Your task to perform on an android device: Clear all items from cart on bestbuy.com. Image 0: 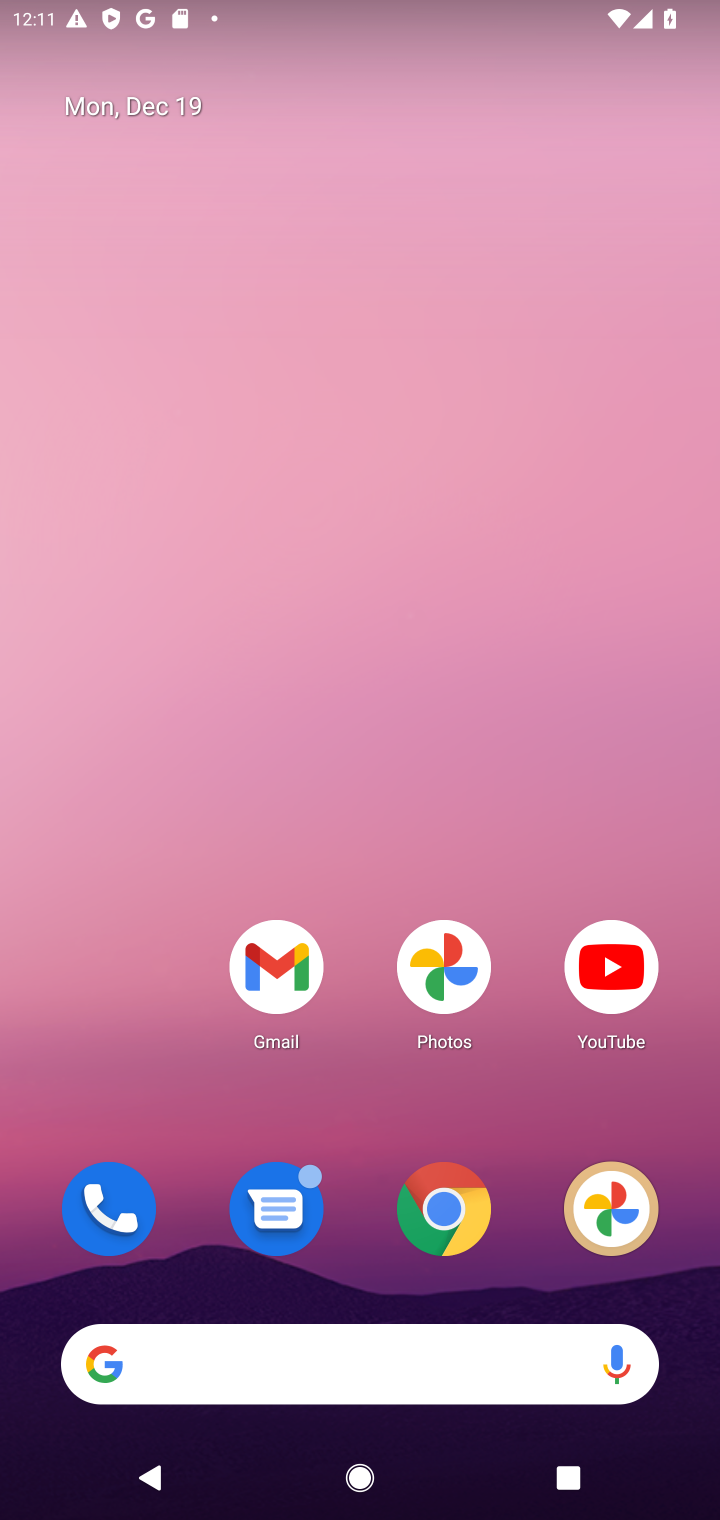
Step 0: click (436, 1219)
Your task to perform on an android device: Clear all items from cart on bestbuy.com. Image 1: 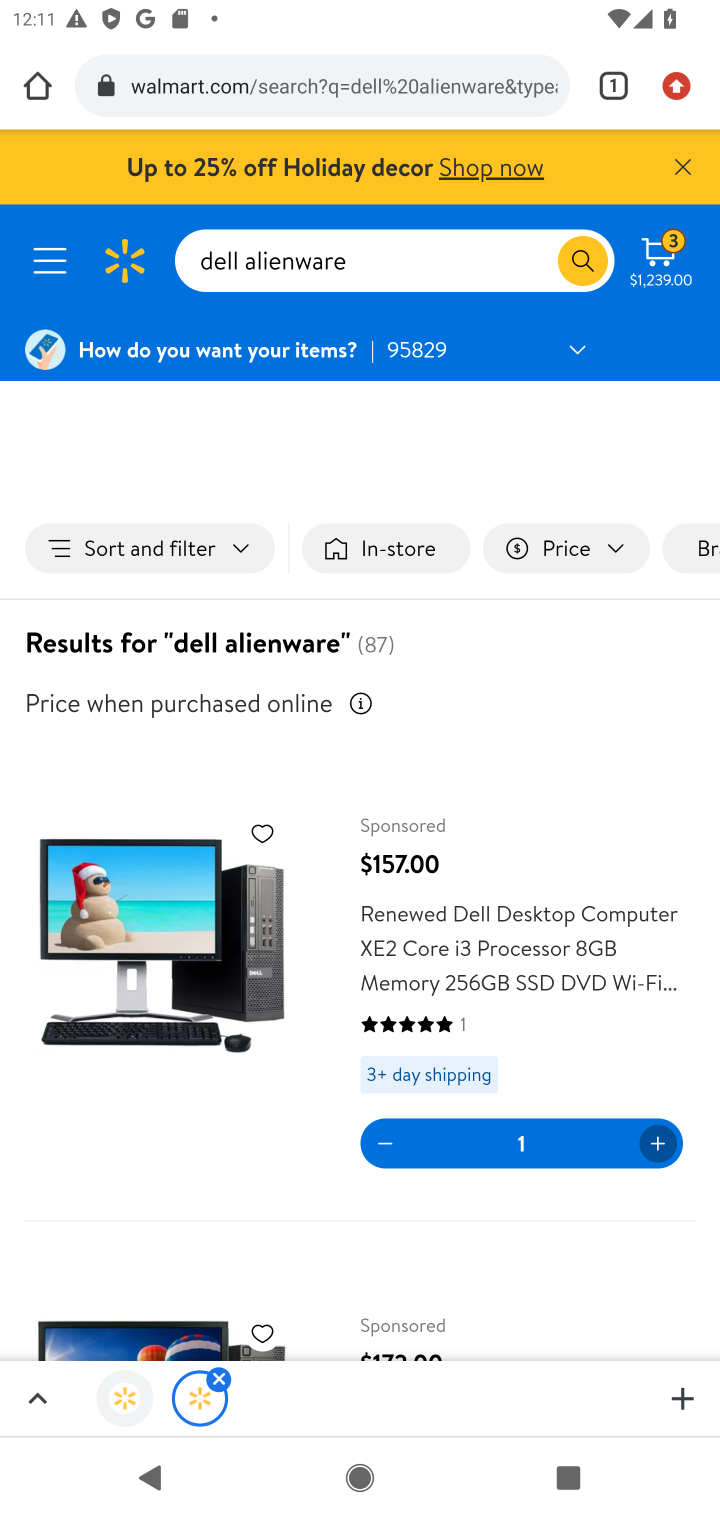
Step 1: click (330, 68)
Your task to perform on an android device: Clear all items from cart on bestbuy.com. Image 2: 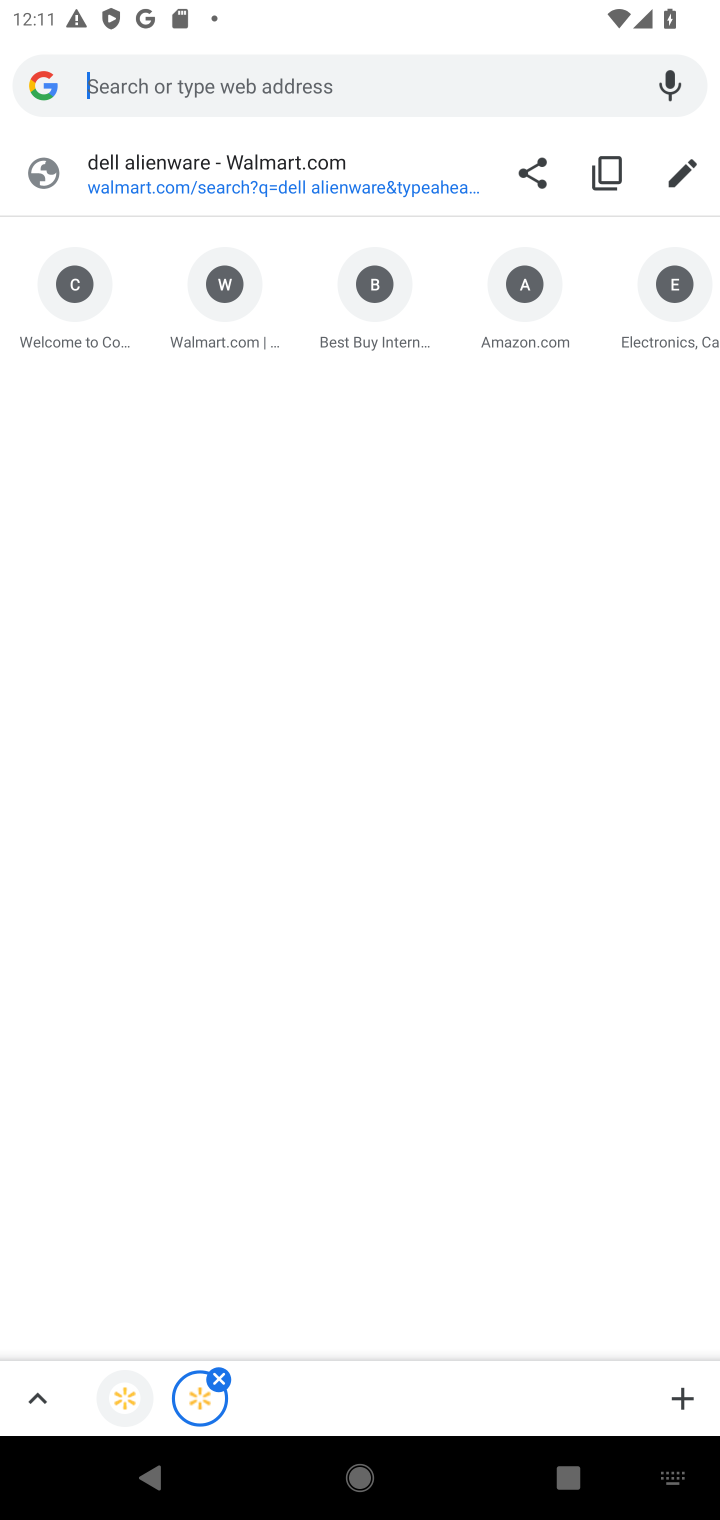
Step 2: type "bestbuy"
Your task to perform on an android device: Clear all items from cart on bestbuy.com. Image 3: 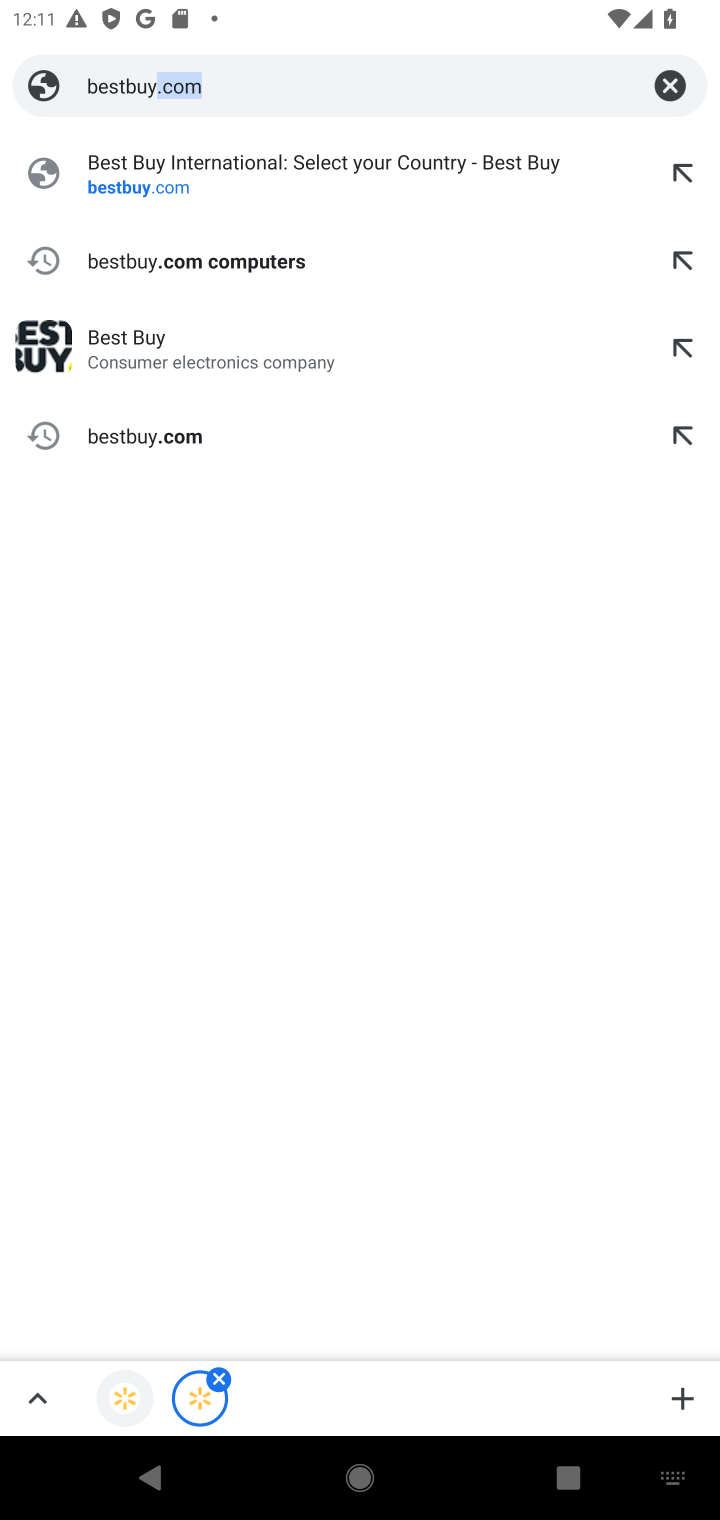
Step 3: click (170, 182)
Your task to perform on an android device: Clear all items from cart on bestbuy.com. Image 4: 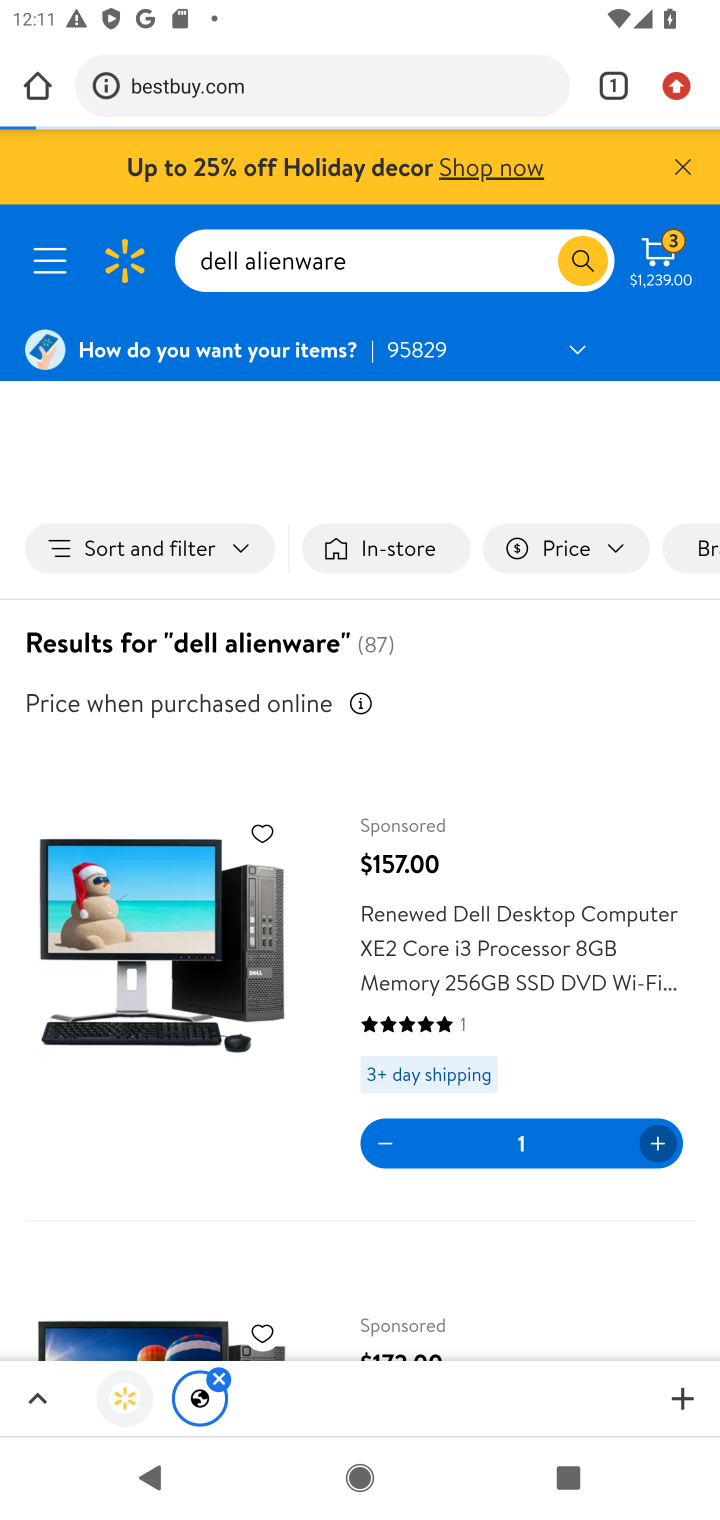
Step 4: click (170, 182)
Your task to perform on an android device: Clear all items from cart on bestbuy.com. Image 5: 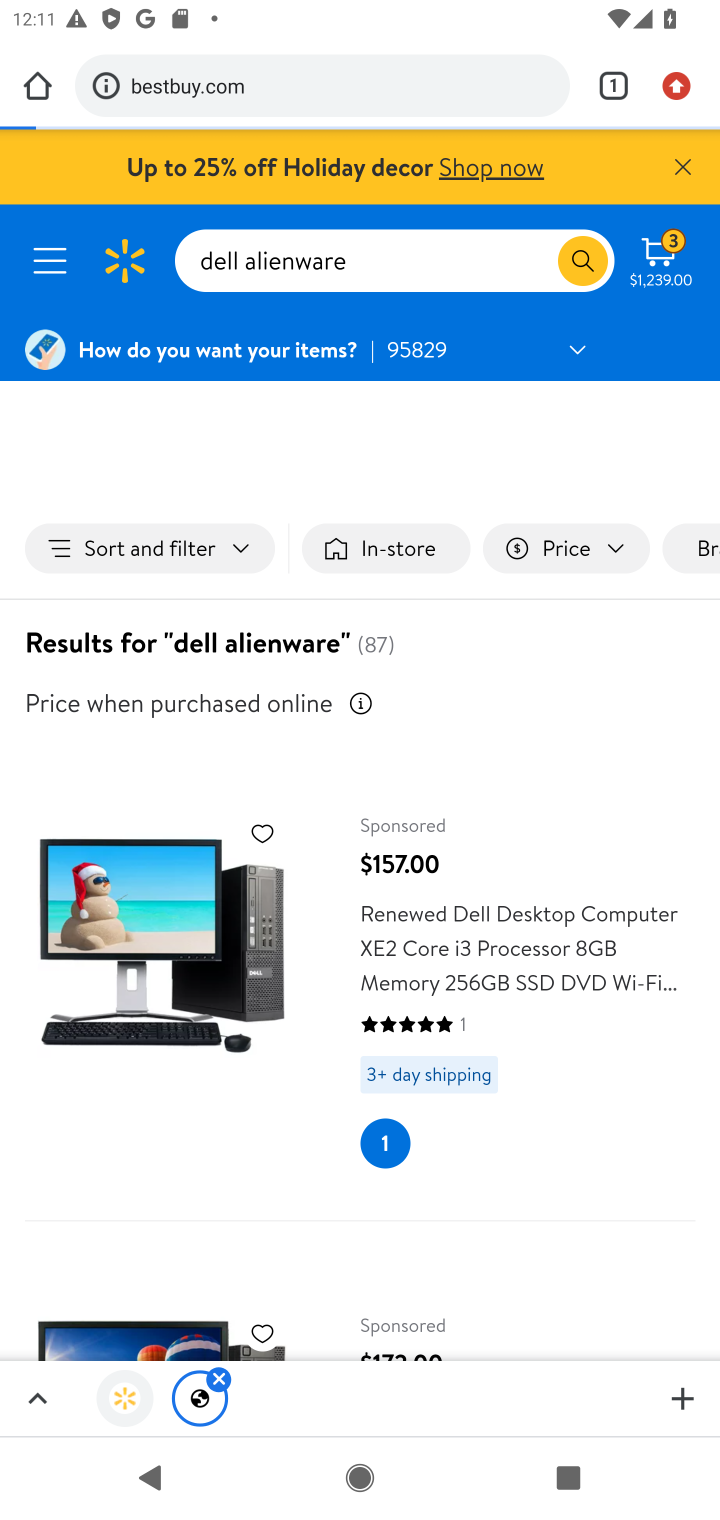
Step 5: click (316, 90)
Your task to perform on an android device: Clear all items from cart on bestbuy.com. Image 6: 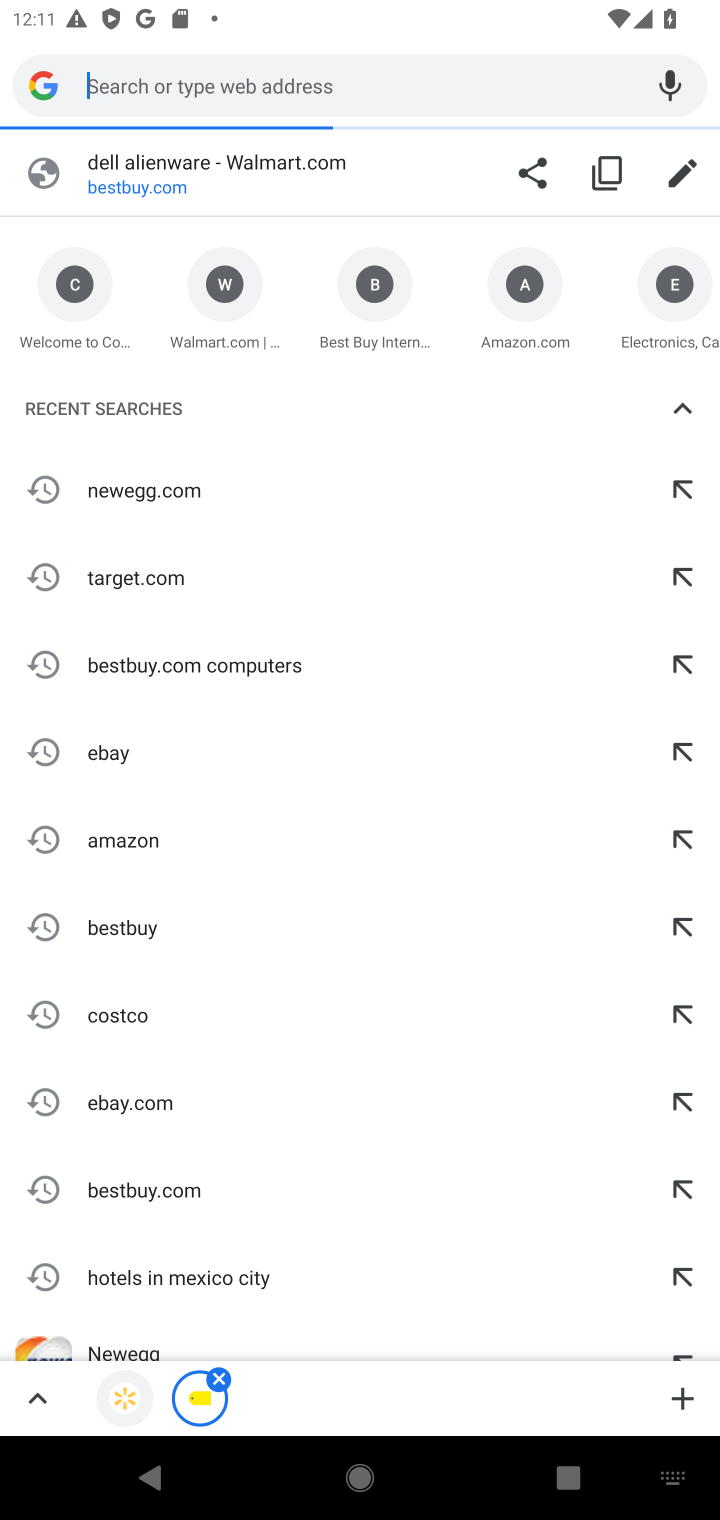
Step 6: click (138, 939)
Your task to perform on an android device: Clear all items from cart on bestbuy.com. Image 7: 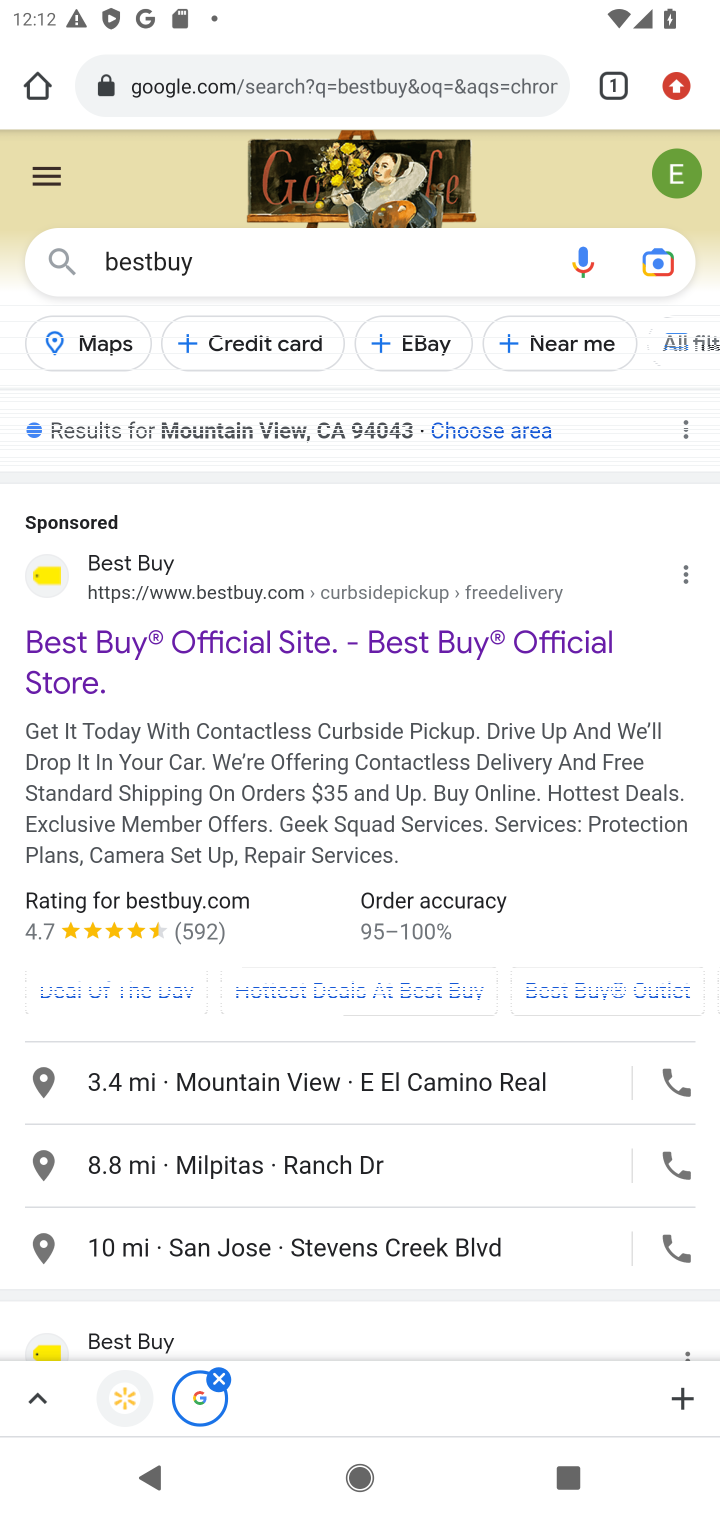
Step 7: click (107, 654)
Your task to perform on an android device: Clear all items from cart on bestbuy.com. Image 8: 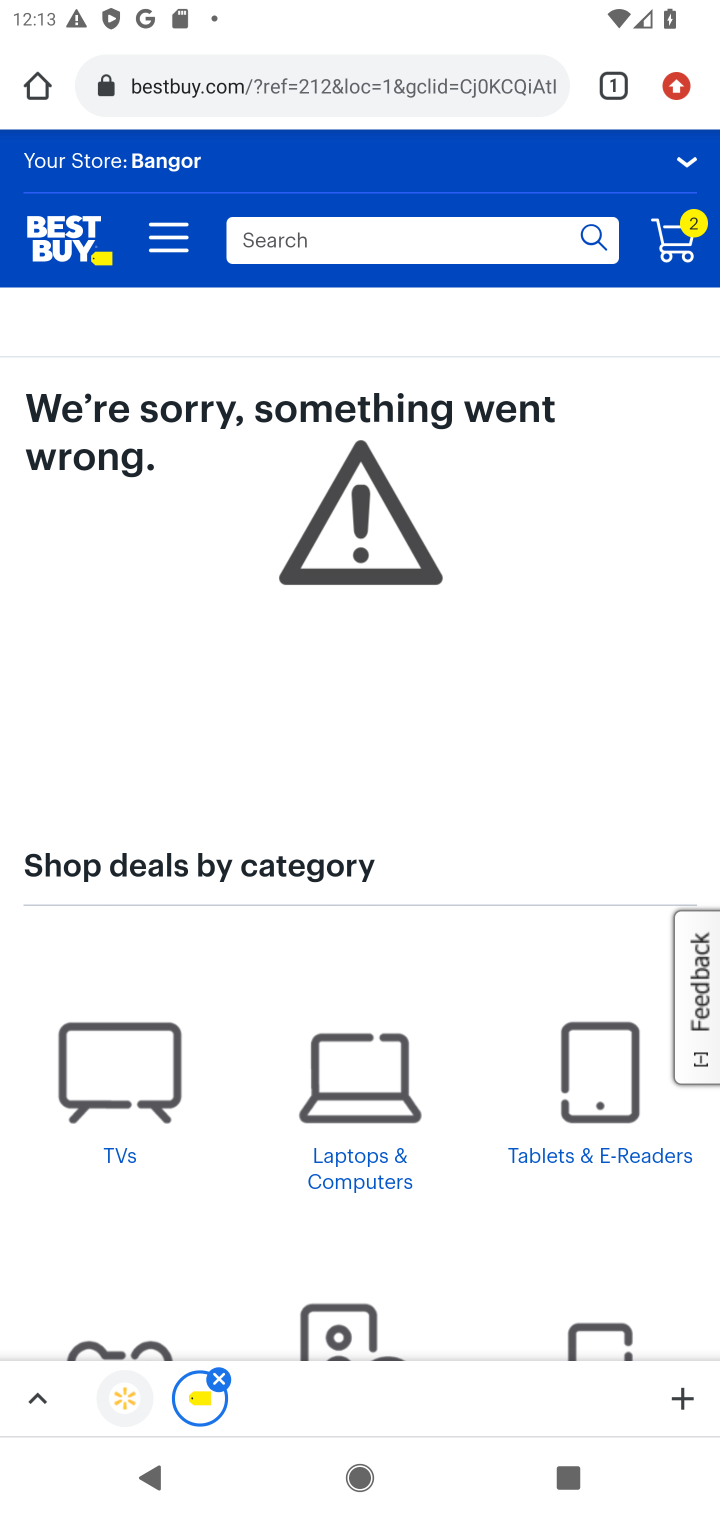
Step 8: click (676, 238)
Your task to perform on an android device: Clear all items from cart on bestbuy.com. Image 9: 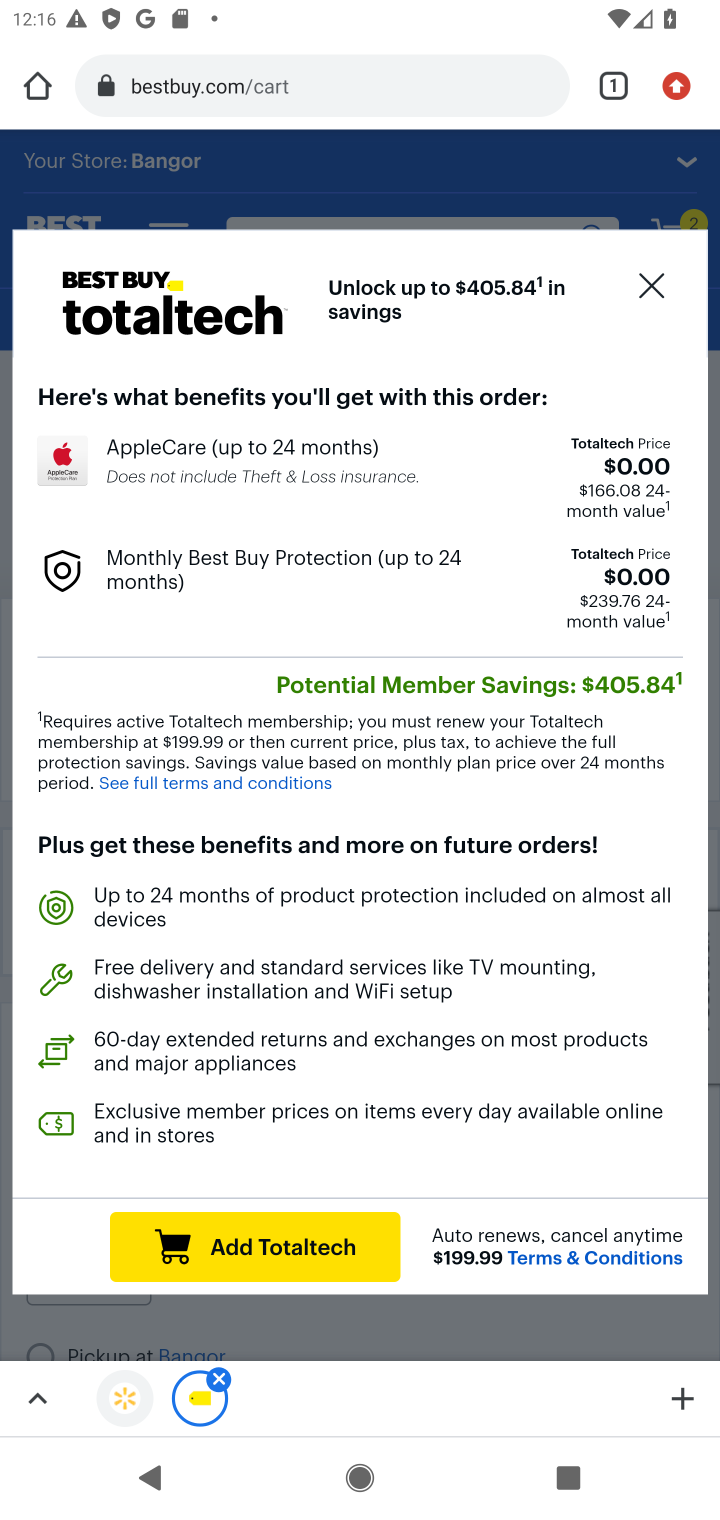
Step 9: click (645, 280)
Your task to perform on an android device: Clear all items from cart on bestbuy.com. Image 10: 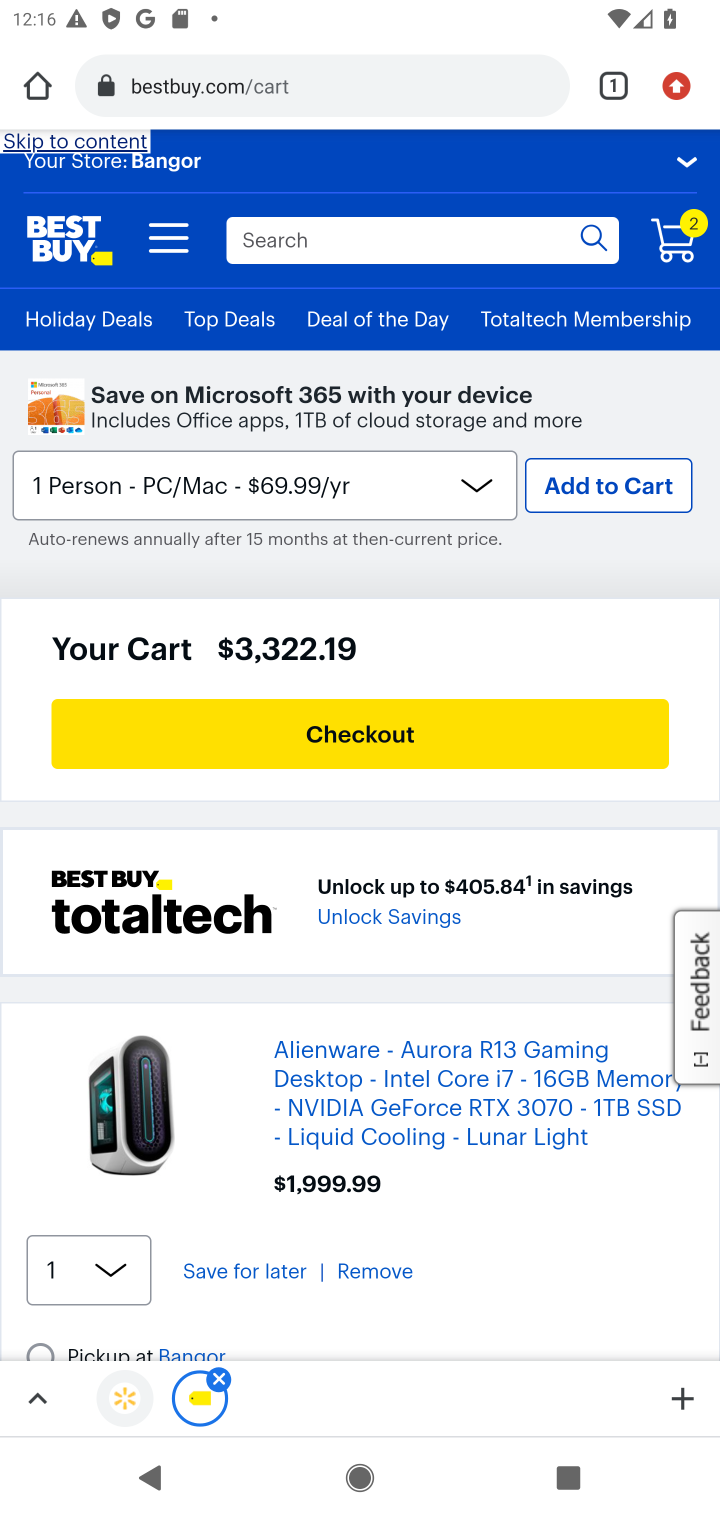
Step 10: click (690, 250)
Your task to perform on an android device: Clear all items from cart on bestbuy.com. Image 11: 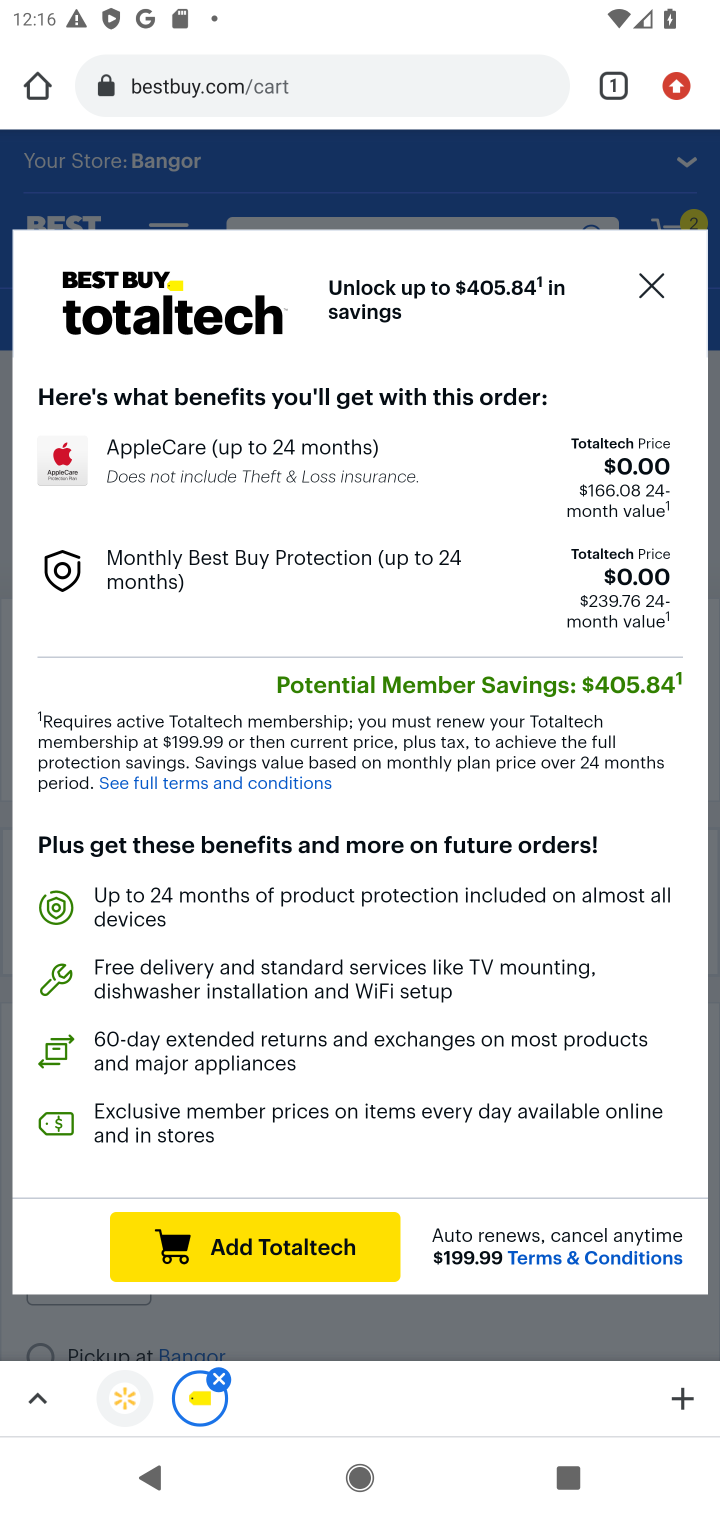
Step 11: click (646, 275)
Your task to perform on an android device: Clear all items from cart on bestbuy.com. Image 12: 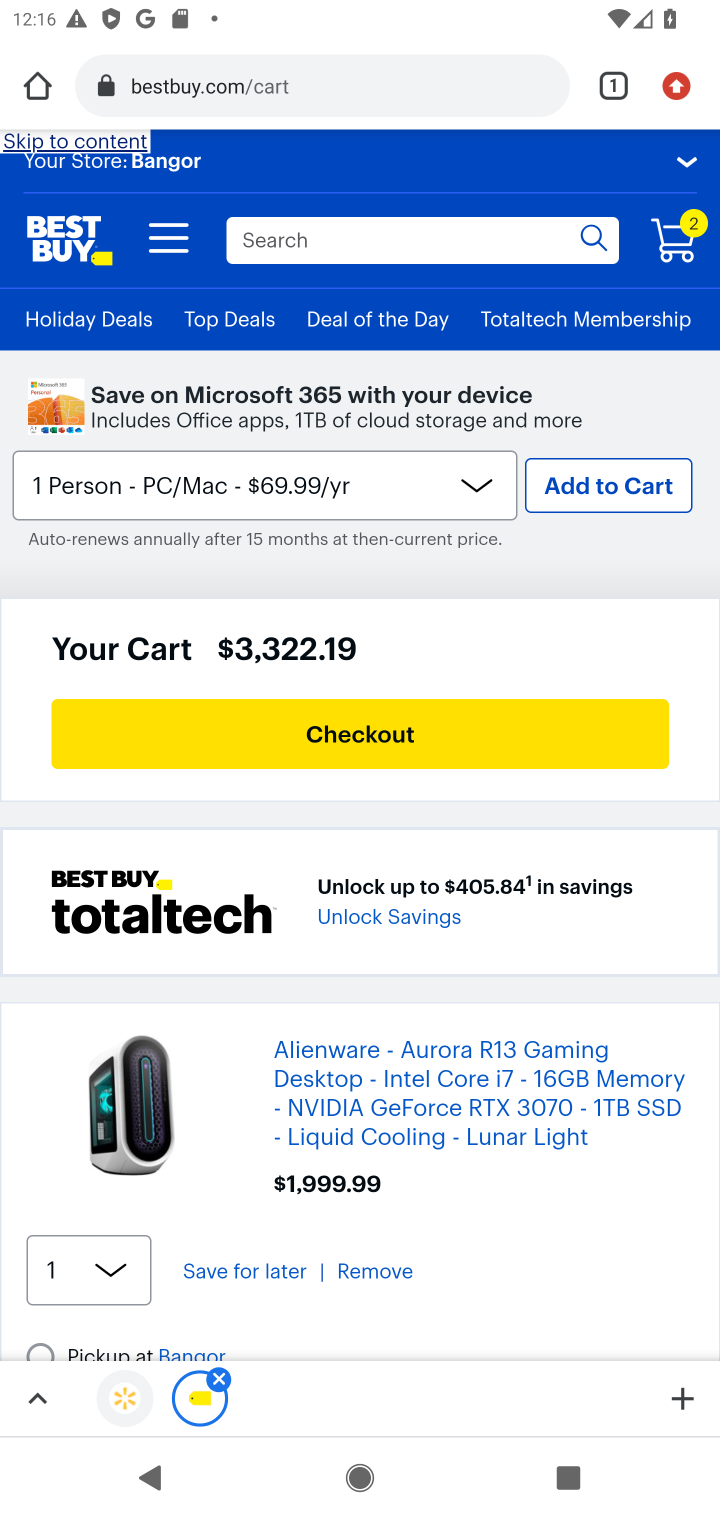
Step 12: click (383, 1272)
Your task to perform on an android device: Clear all items from cart on bestbuy.com. Image 13: 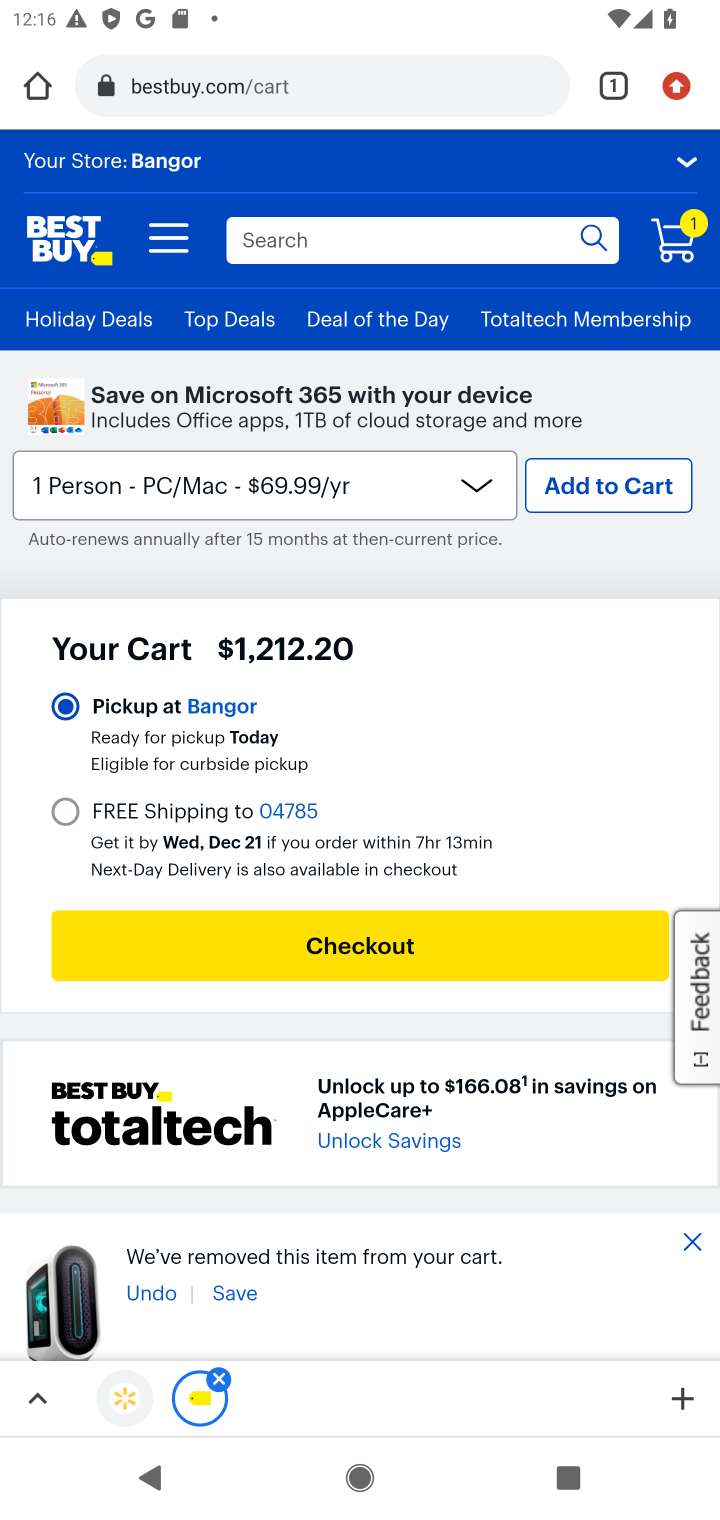
Step 13: drag from (394, 1177) to (319, 516)
Your task to perform on an android device: Clear all items from cart on bestbuy.com. Image 14: 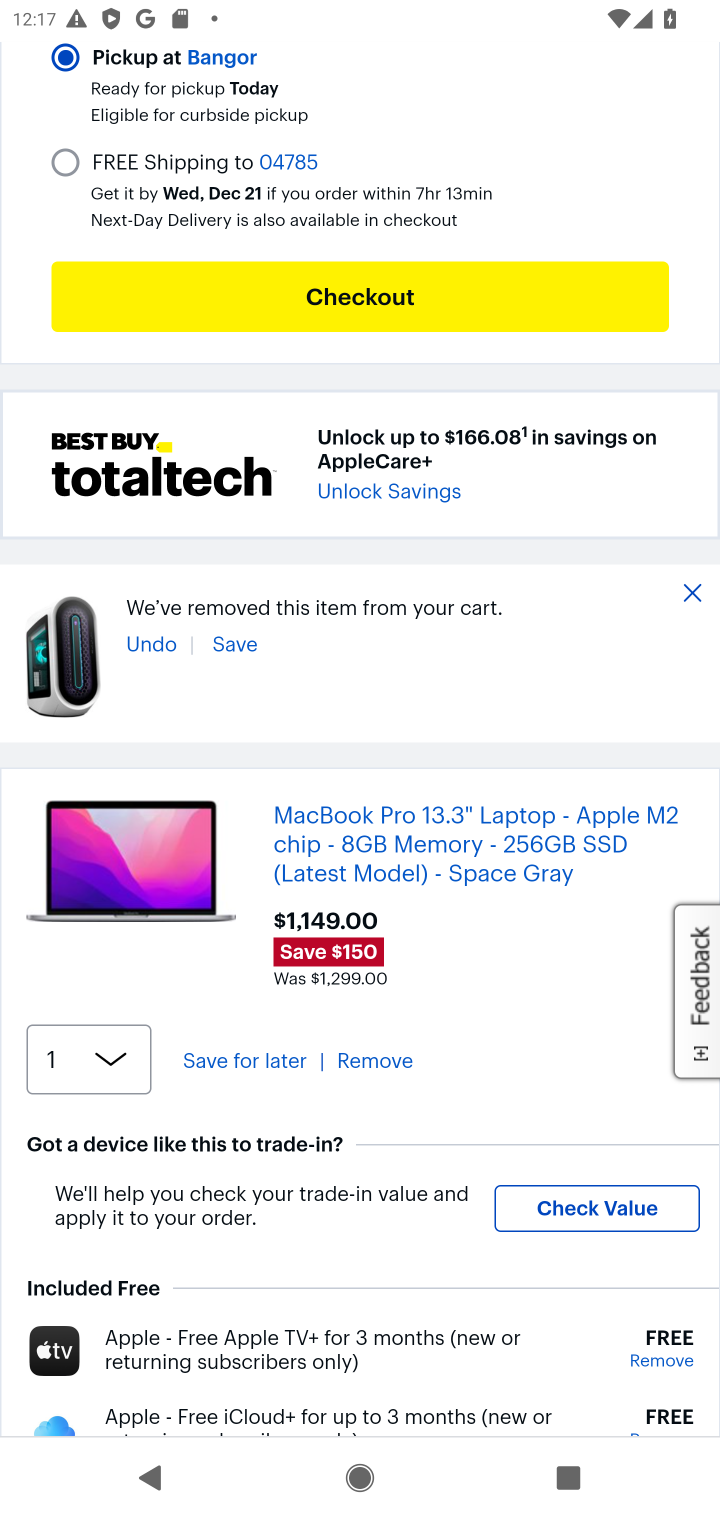
Step 14: click (379, 1055)
Your task to perform on an android device: Clear all items from cart on bestbuy.com. Image 15: 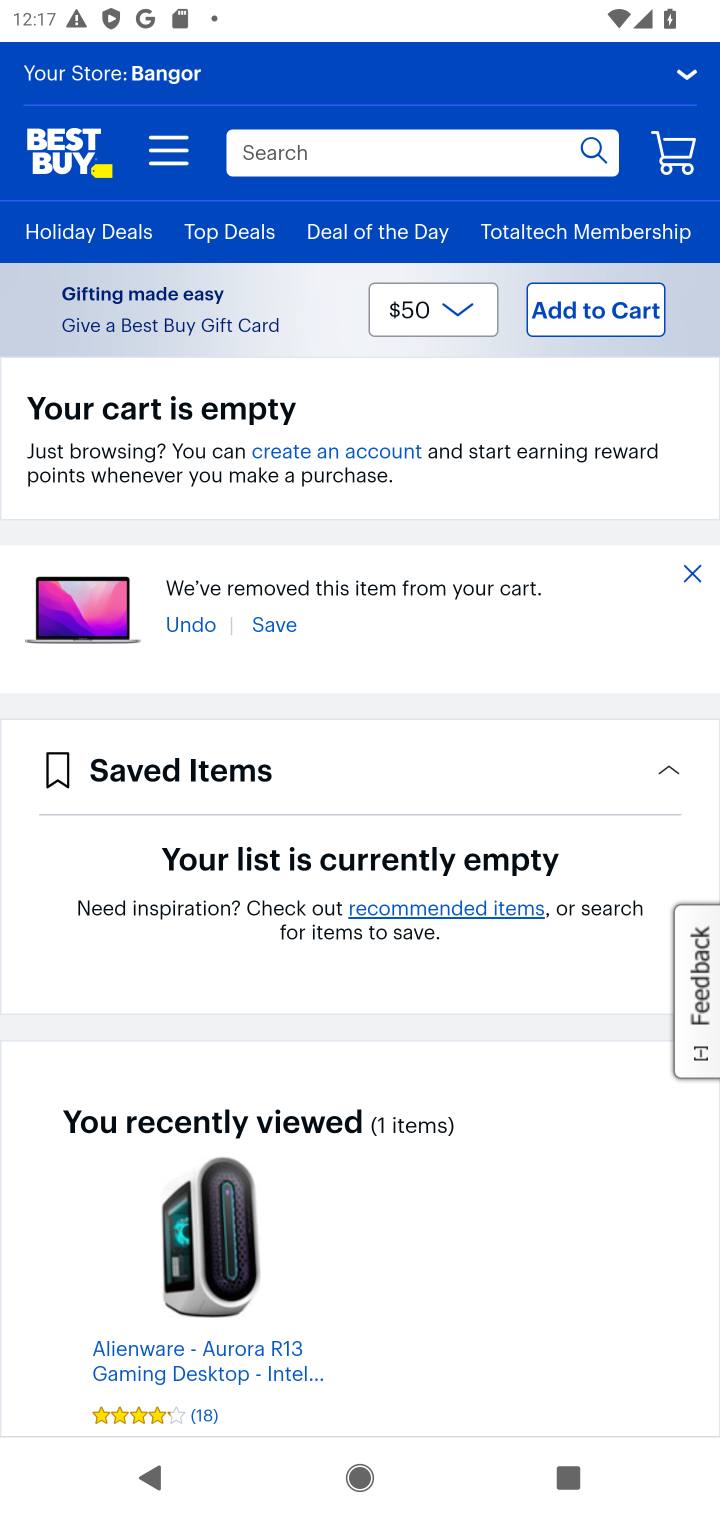
Step 15: task complete